Your task to perform on an android device: Search for Italian restaurants on Maps Image 0: 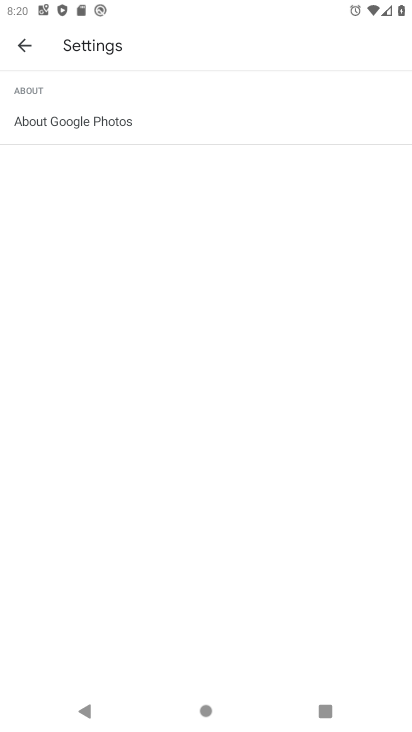
Step 0: press home button
Your task to perform on an android device: Search for Italian restaurants on Maps Image 1: 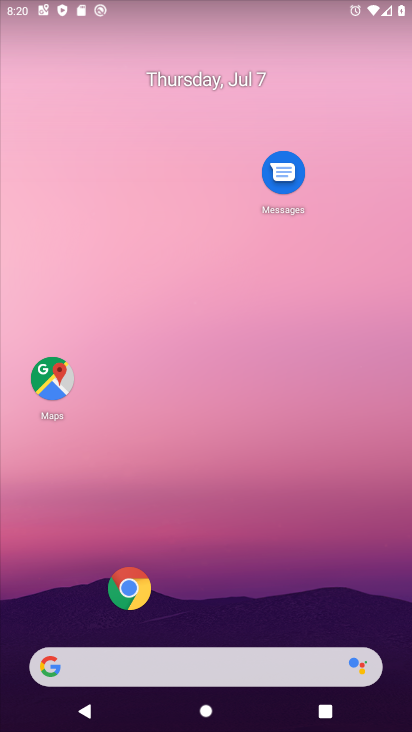
Step 1: click (52, 392)
Your task to perform on an android device: Search for Italian restaurants on Maps Image 2: 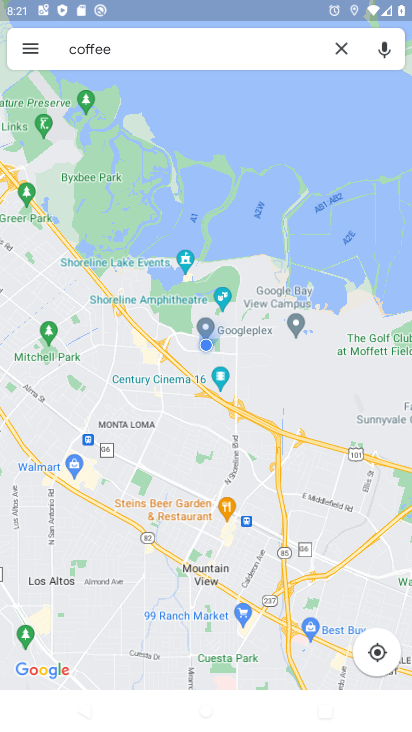
Step 2: click (332, 49)
Your task to perform on an android device: Search for Italian restaurants on Maps Image 3: 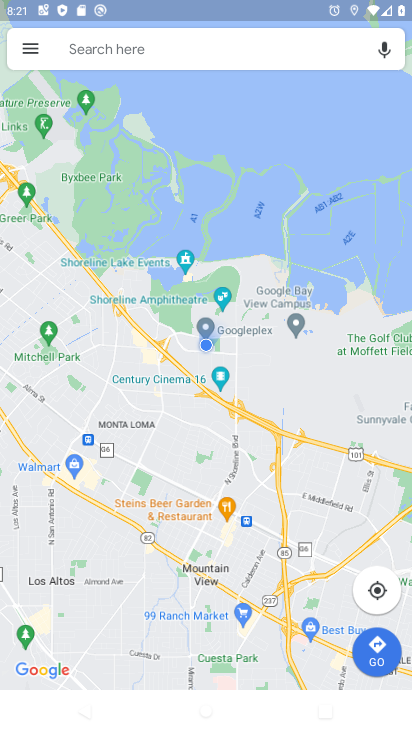
Step 3: type "Italian restaurants "
Your task to perform on an android device: Search for Italian restaurants on Maps Image 4: 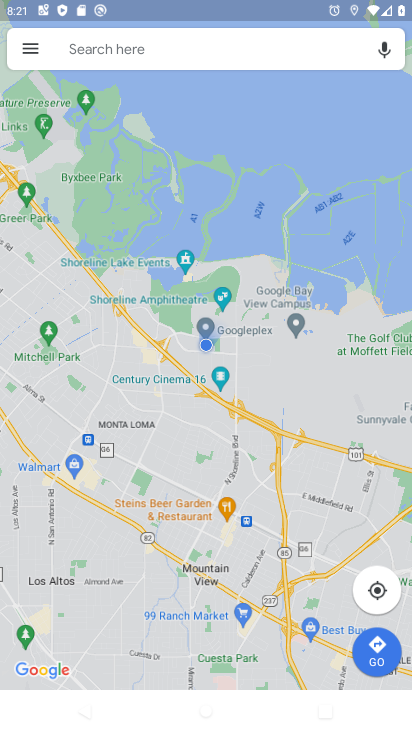
Step 4: type "Italian restaurants"
Your task to perform on an android device: Search for Italian restaurants on Maps Image 5: 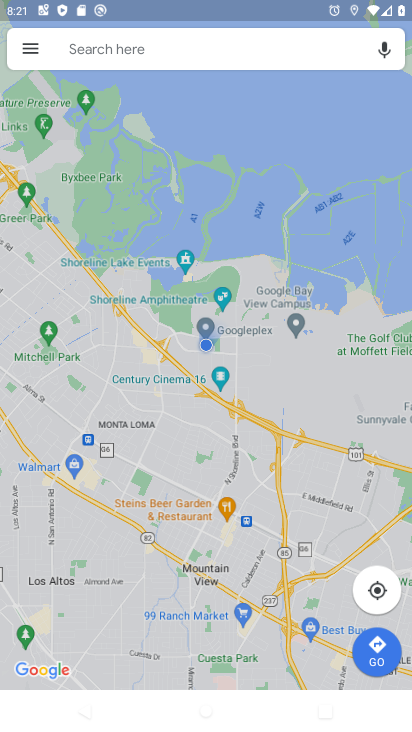
Step 5: type ""
Your task to perform on an android device: Search for Italian restaurants on Maps Image 6: 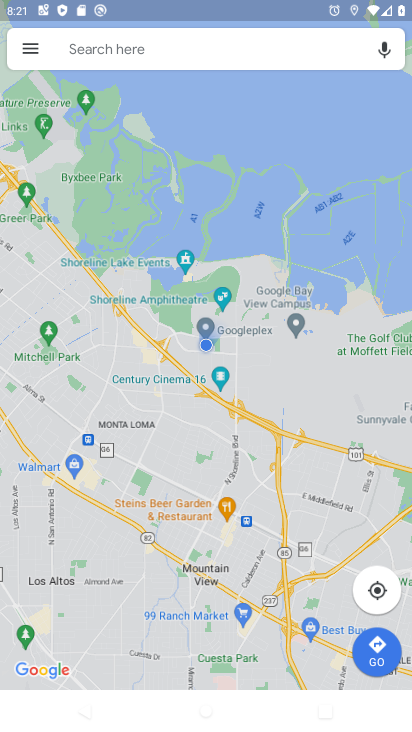
Step 6: click (72, 49)
Your task to perform on an android device: Search for Italian restaurants on Maps Image 7: 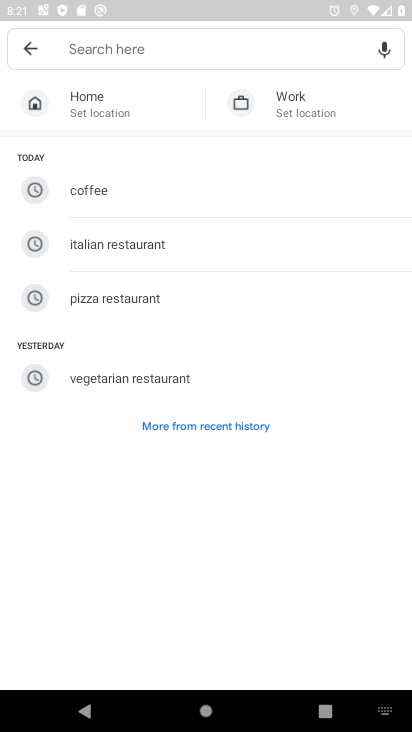
Step 7: click (131, 235)
Your task to perform on an android device: Search for Italian restaurants on Maps Image 8: 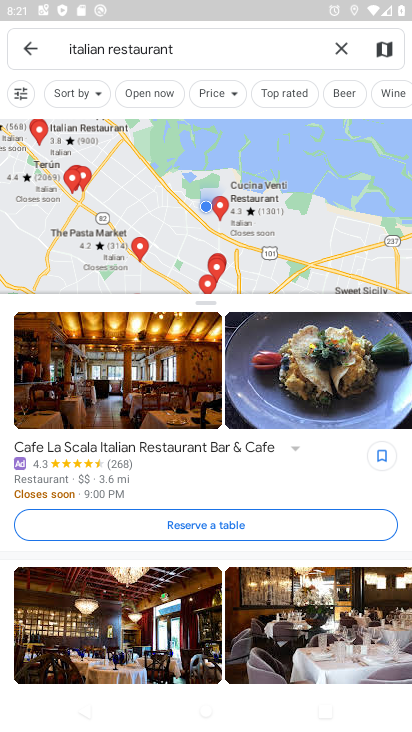
Step 8: task complete